Your task to perform on an android device: Show the shopping cart on costco. Add "logitech g502" to the cart on costco, then select checkout. Image 0: 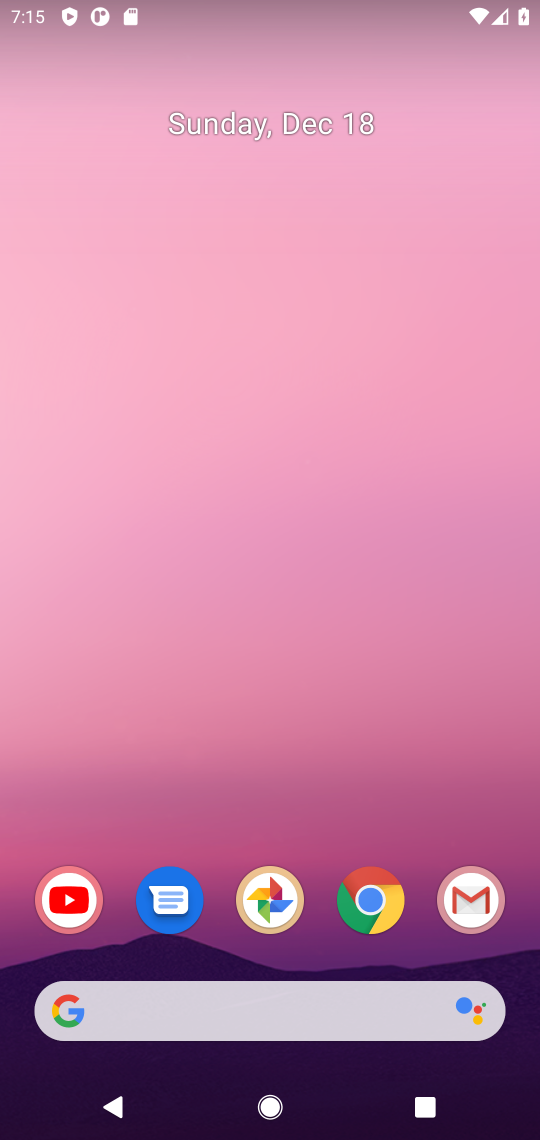
Step 0: click (391, 883)
Your task to perform on an android device: Show the shopping cart on costco. Add "logitech g502" to the cart on costco, then select checkout. Image 1: 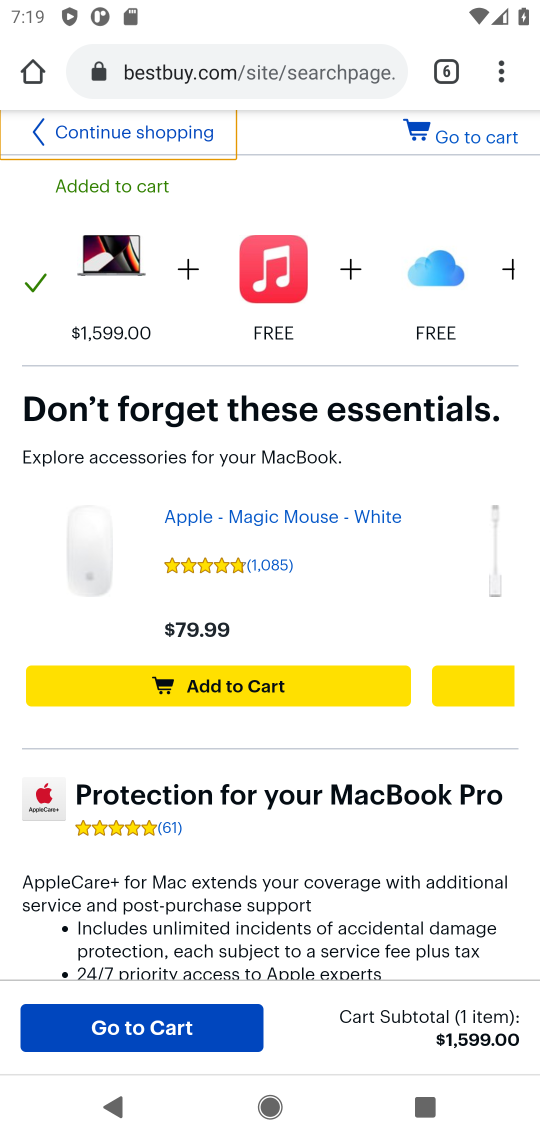
Step 1: click (444, 78)
Your task to perform on an android device: Show the shopping cart on costco. Add "logitech g502" to the cart on costco, then select checkout. Image 2: 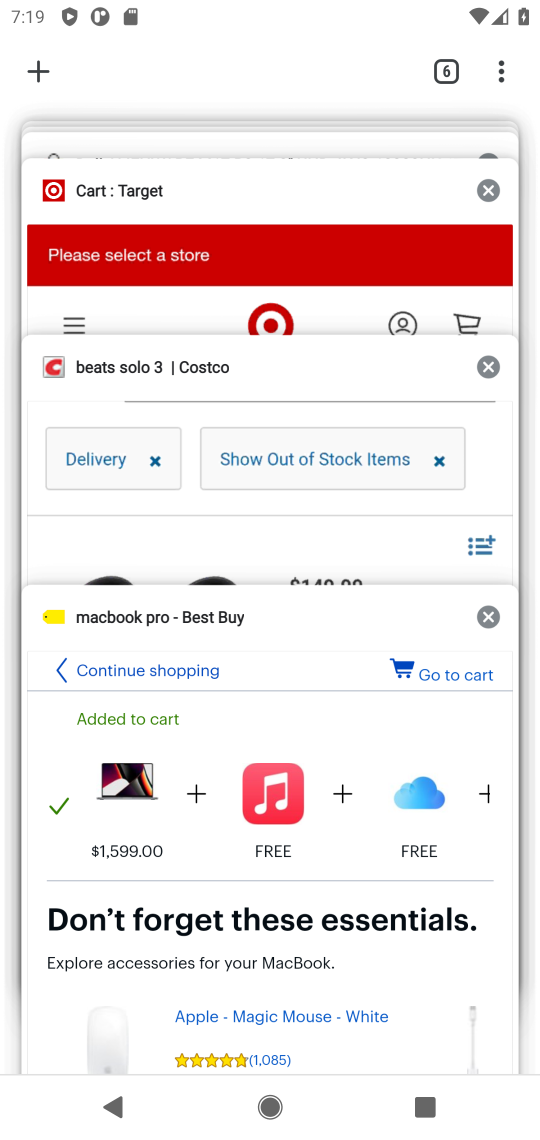
Step 2: click (78, 419)
Your task to perform on an android device: Show the shopping cart on costco. Add "logitech g502" to the cart on costco, then select checkout. Image 3: 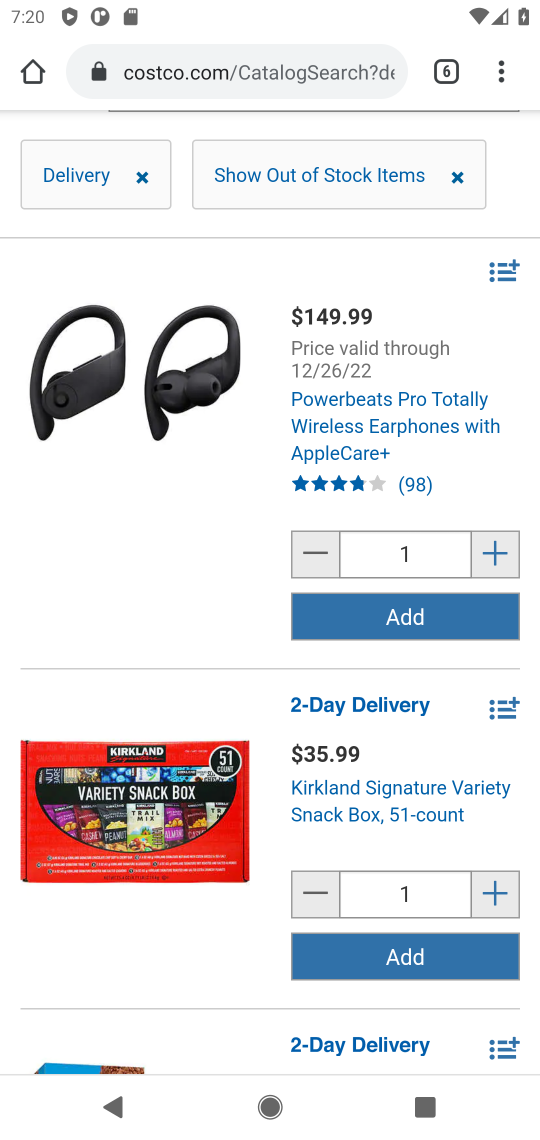
Step 3: drag from (345, 242) to (374, 1079)
Your task to perform on an android device: Show the shopping cart on costco. Add "logitech g502" to the cart on costco, then select checkout. Image 4: 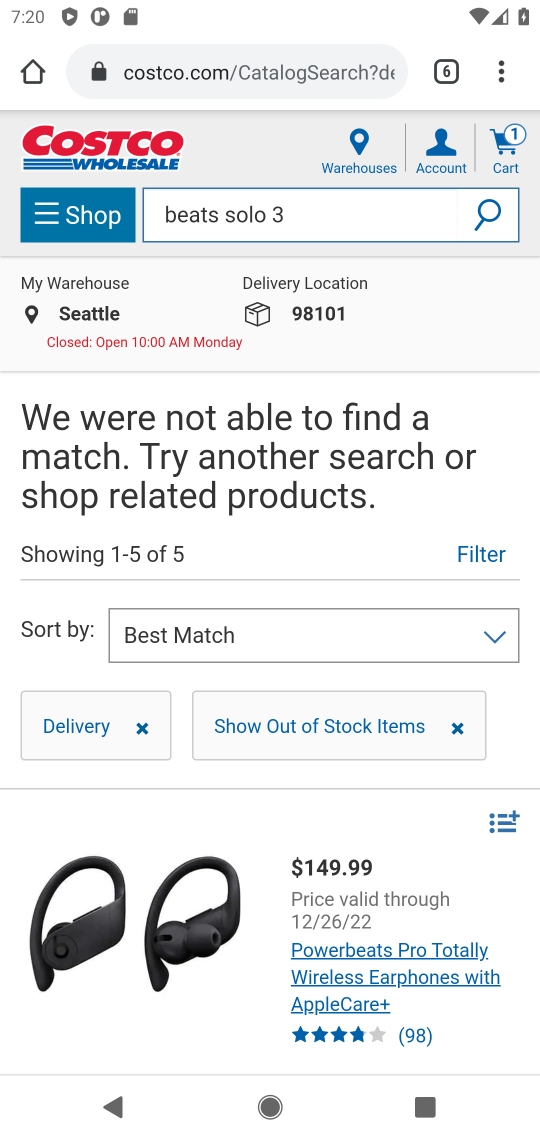
Step 4: click (514, 136)
Your task to perform on an android device: Show the shopping cart on costco. Add "logitech g502" to the cart on costco, then select checkout. Image 5: 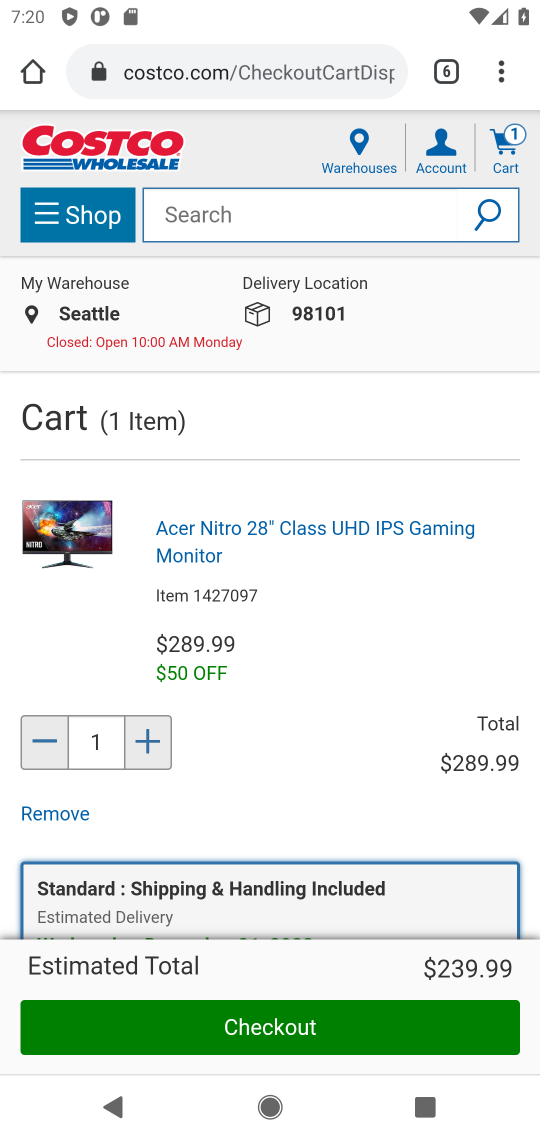
Step 5: click (249, 208)
Your task to perform on an android device: Show the shopping cart on costco. Add "logitech g502" to the cart on costco, then select checkout. Image 6: 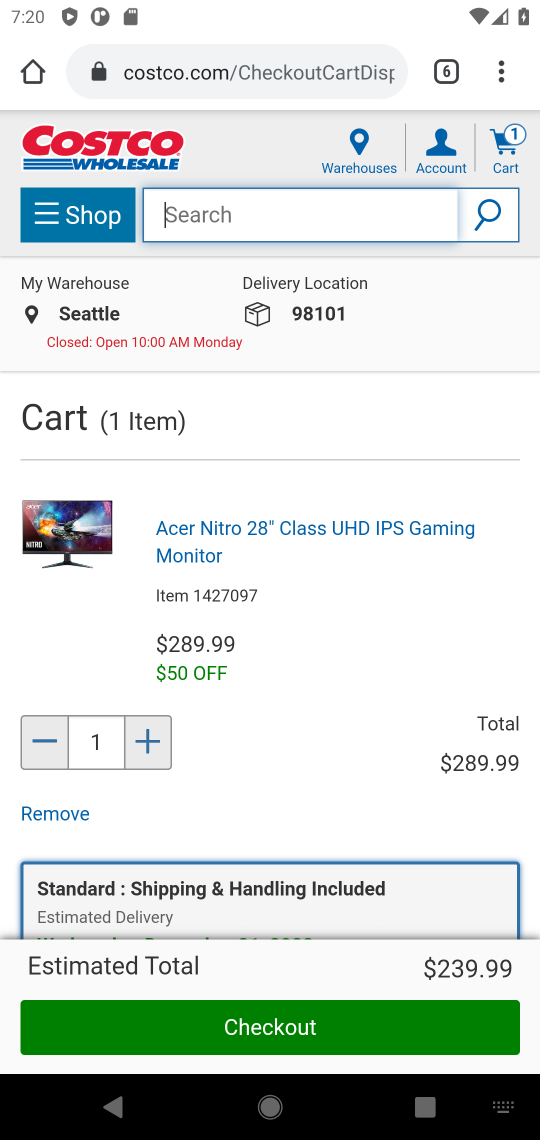
Step 6: type "logitech g502"
Your task to perform on an android device: Show the shopping cart on costco. Add "logitech g502" to the cart on costco, then select checkout. Image 7: 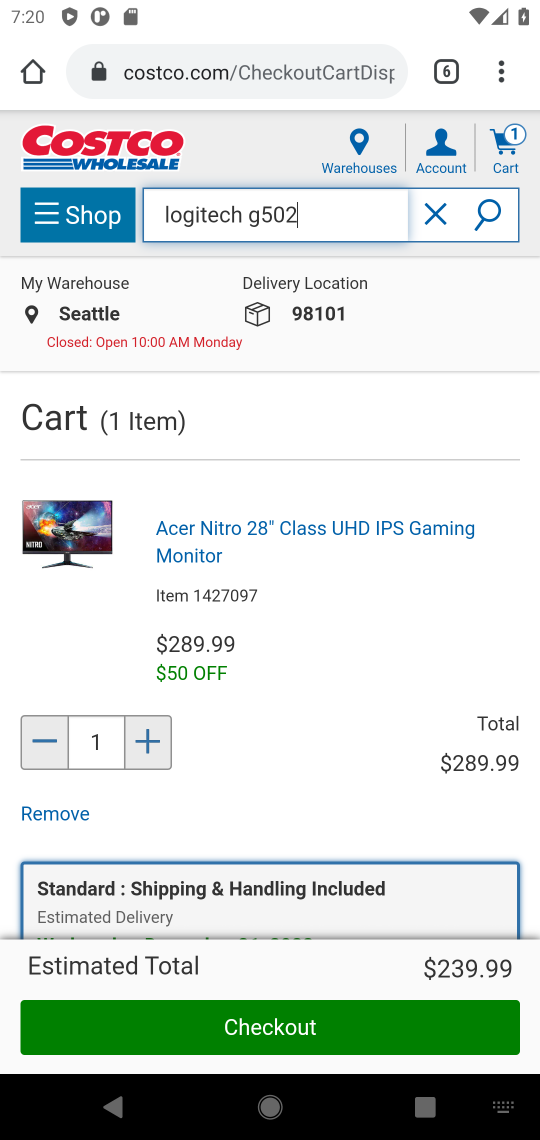
Step 7: click (488, 216)
Your task to perform on an android device: Show the shopping cart on costco. Add "logitech g502" to the cart on costco, then select checkout. Image 8: 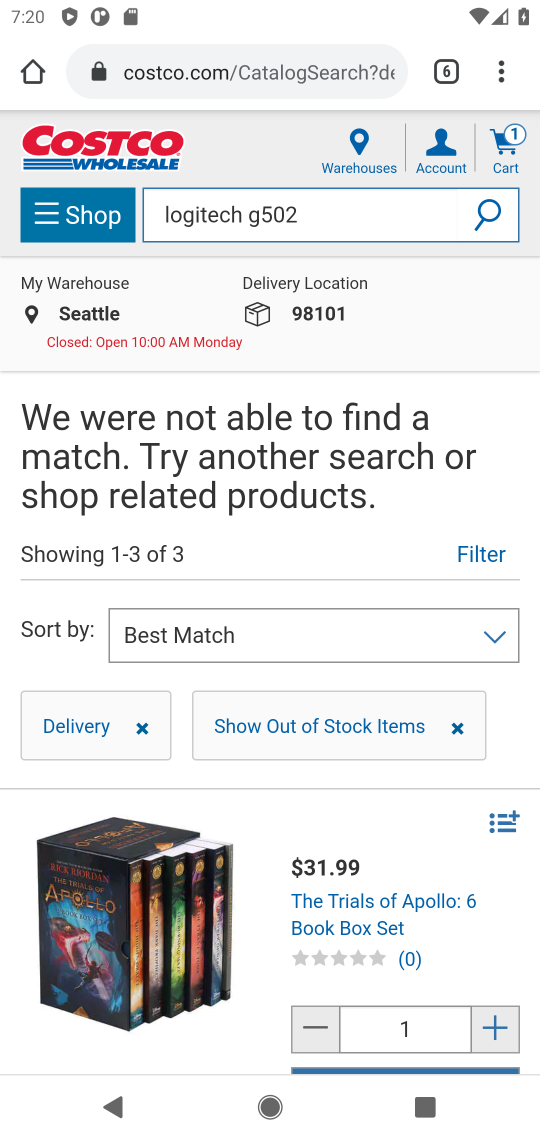
Step 8: task complete